Your task to perform on an android device: change keyboard looks Image 0: 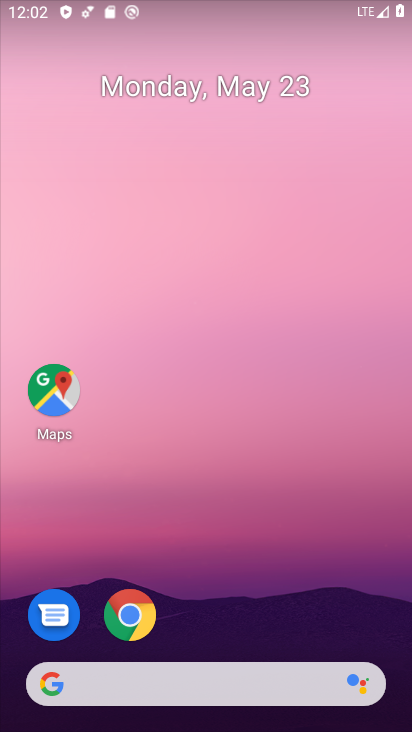
Step 0: drag from (182, 609) to (297, 97)
Your task to perform on an android device: change keyboard looks Image 1: 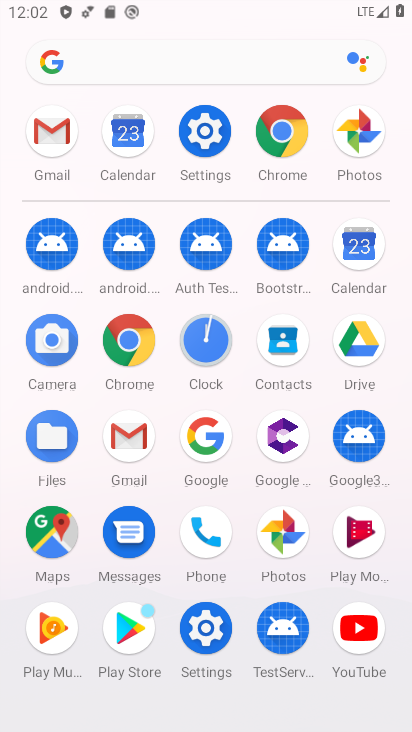
Step 1: click (193, 128)
Your task to perform on an android device: change keyboard looks Image 2: 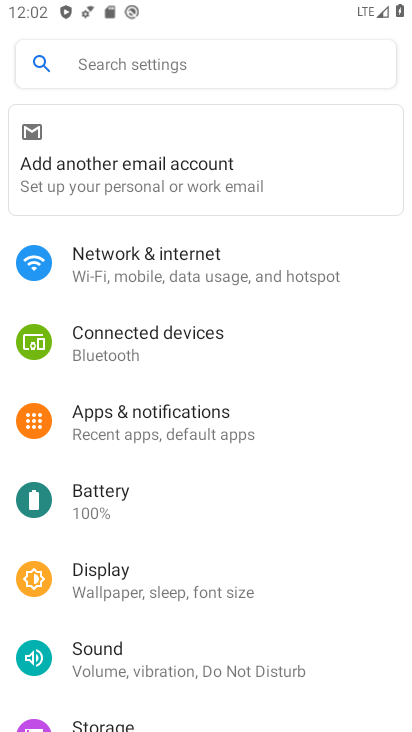
Step 2: drag from (147, 674) to (300, 82)
Your task to perform on an android device: change keyboard looks Image 3: 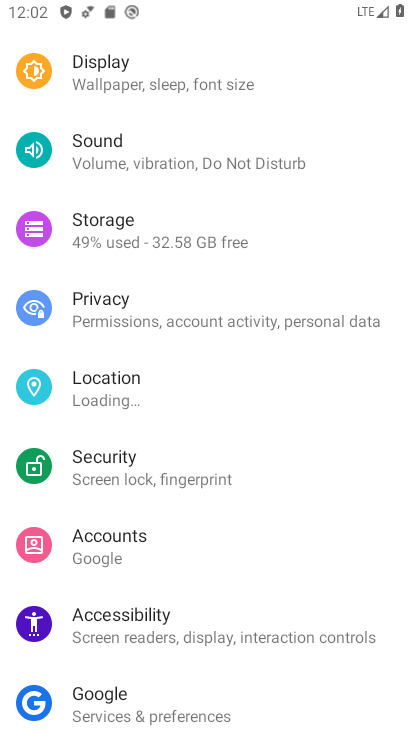
Step 3: drag from (179, 610) to (337, 31)
Your task to perform on an android device: change keyboard looks Image 4: 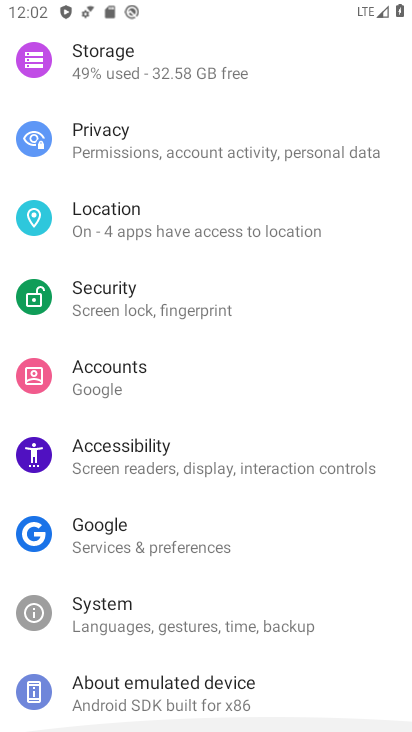
Step 4: drag from (168, 616) to (209, 52)
Your task to perform on an android device: change keyboard looks Image 5: 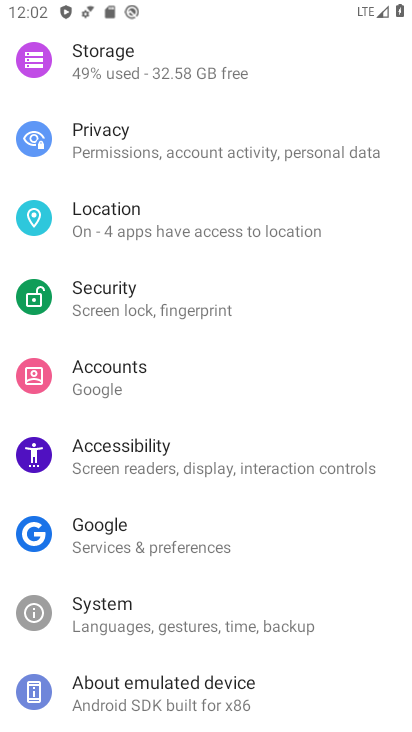
Step 5: click (174, 614)
Your task to perform on an android device: change keyboard looks Image 6: 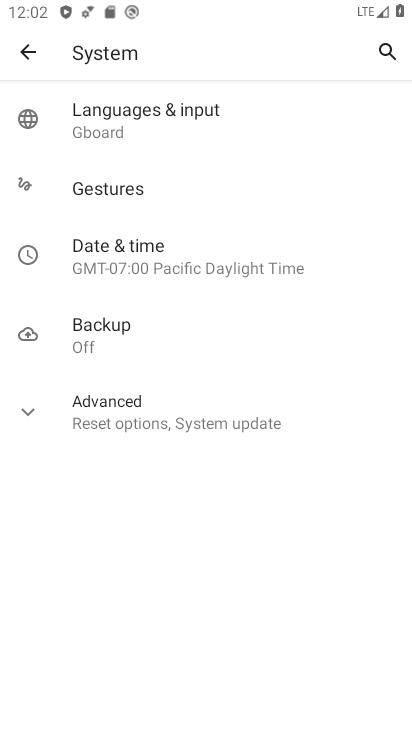
Step 6: click (125, 112)
Your task to perform on an android device: change keyboard looks Image 7: 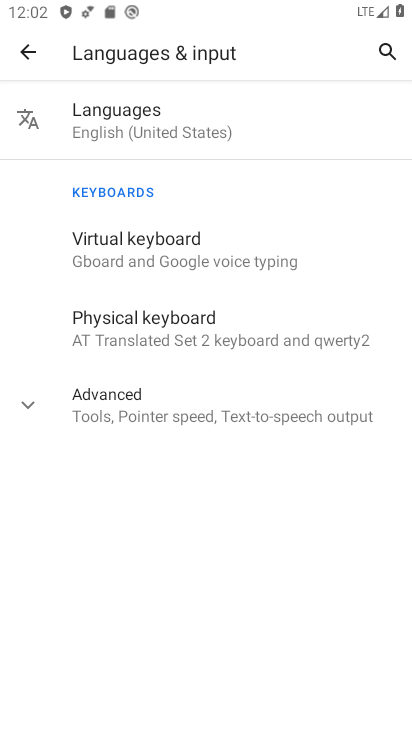
Step 7: click (203, 248)
Your task to perform on an android device: change keyboard looks Image 8: 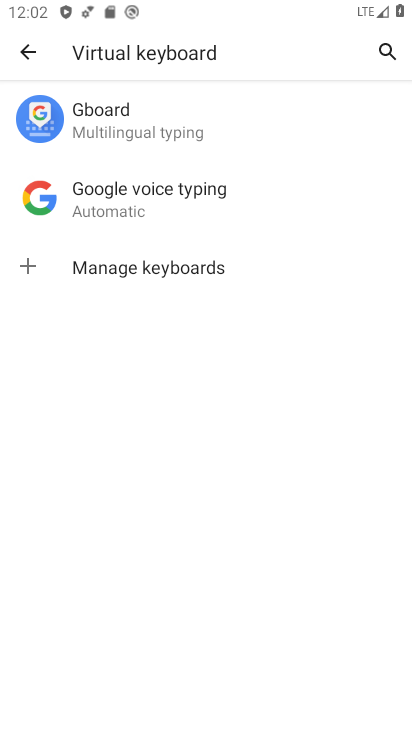
Step 8: click (121, 127)
Your task to perform on an android device: change keyboard looks Image 9: 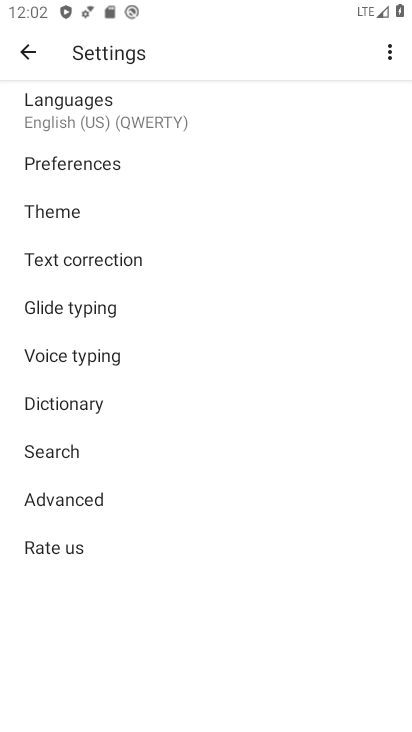
Step 9: click (78, 205)
Your task to perform on an android device: change keyboard looks Image 10: 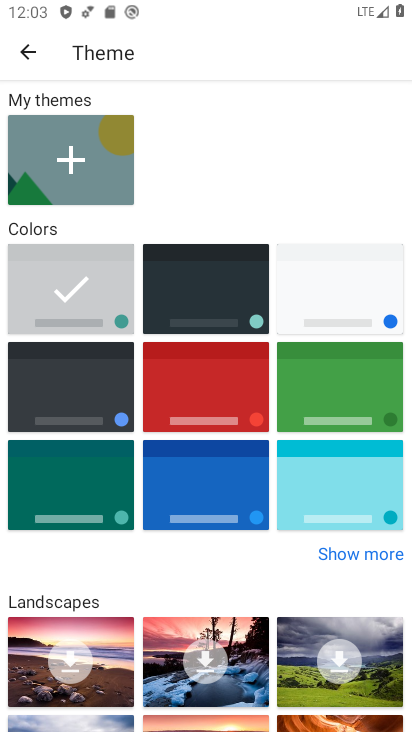
Step 10: click (210, 387)
Your task to perform on an android device: change keyboard looks Image 11: 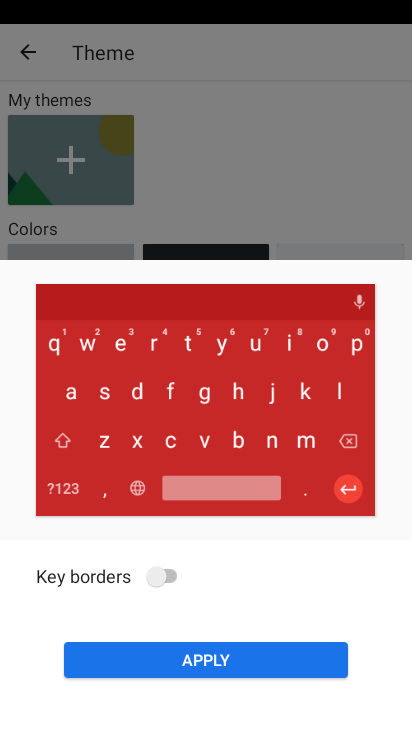
Step 11: click (172, 665)
Your task to perform on an android device: change keyboard looks Image 12: 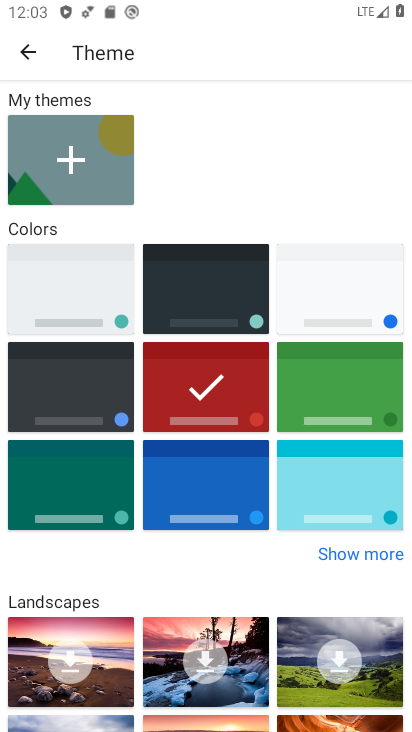
Step 12: task complete